Your task to perform on an android device: turn off priority inbox in the gmail app Image 0: 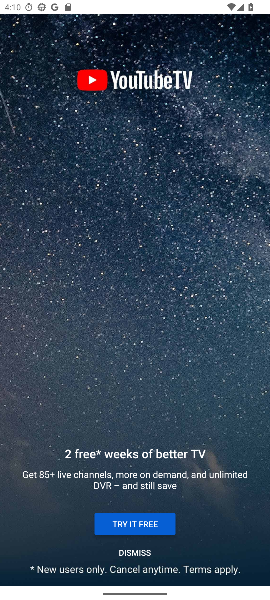
Step 0: press home button
Your task to perform on an android device: turn off priority inbox in the gmail app Image 1: 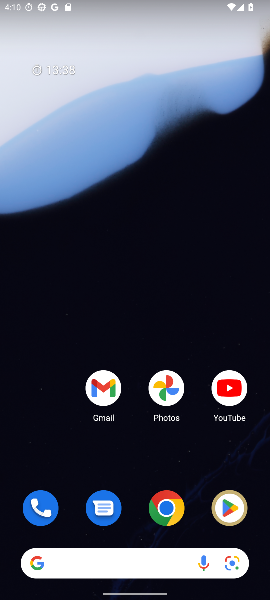
Step 1: drag from (78, 546) to (158, 133)
Your task to perform on an android device: turn off priority inbox in the gmail app Image 2: 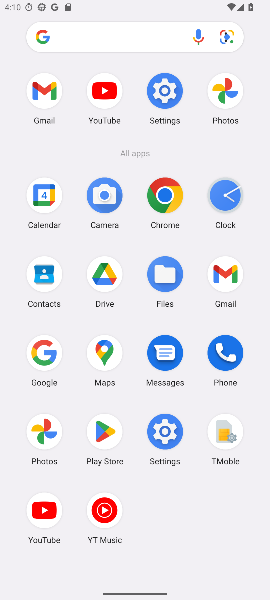
Step 2: click (232, 264)
Your task to perform on an android device: turn off priority inbox in the gmail app Image 3: 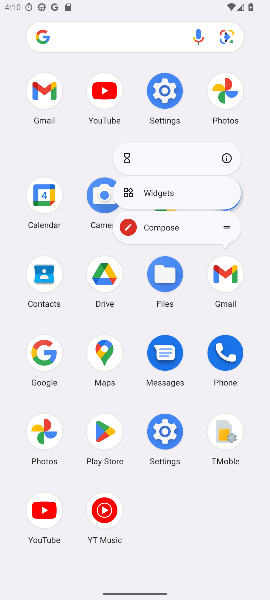
Step 3: click (226, 155)
Your task to perform on an android device: turn off priority inbox in the gmail app Image 4: 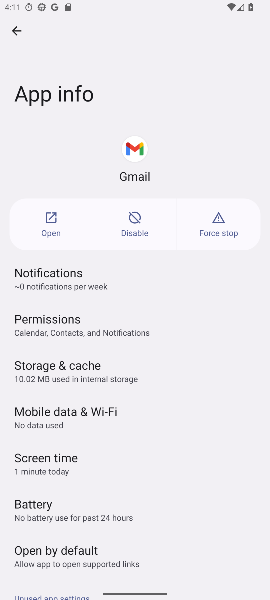
Step 4: click (55, 221)
Your task to perform on an android device: turn off priority inbox in the gmail app Image 5: 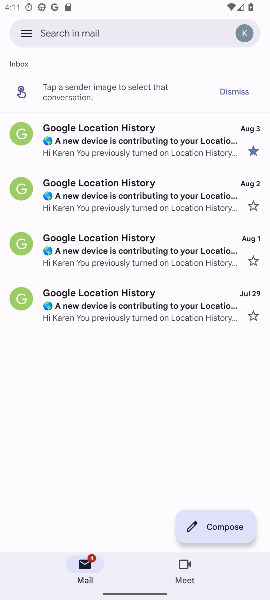
Step 5: drag from (100, 485) to (151, 205)
Your task to perform on an android device: turn off priority inbox in the gmail app Image 6: 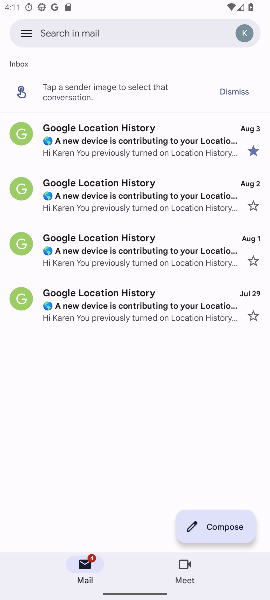
Step 6: click (25, 33)
Your task to perform on an android device: turn off priority inbox in the gmail app Image 7: 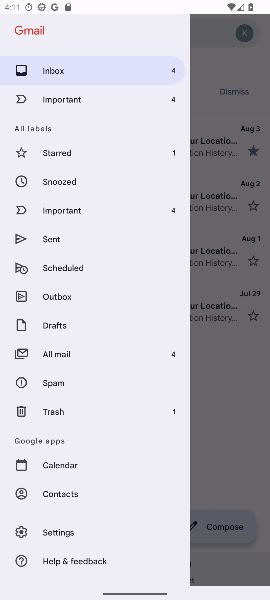
Step 7: click (39, 531)
Your task to perform on an android device: turn off priority inbox in the gmail app Image 8: 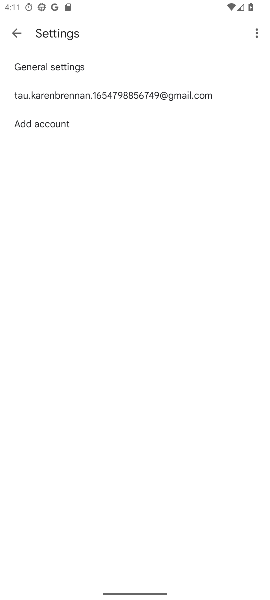
Step 8: drag from (132, 369) to (160, 142)
Your task to perform on an android device: turn off priority inbox in the gmail app Image 9: 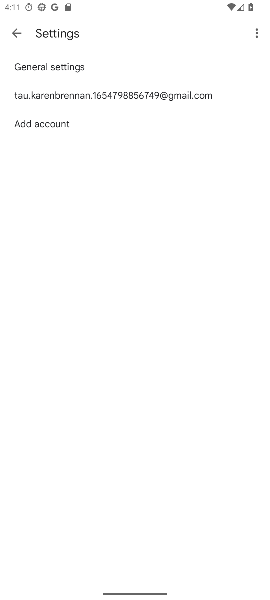
Step 9: click (86, 98)
Your task to perform on an android device: turn off priority inbox in the gmail app Image 10: 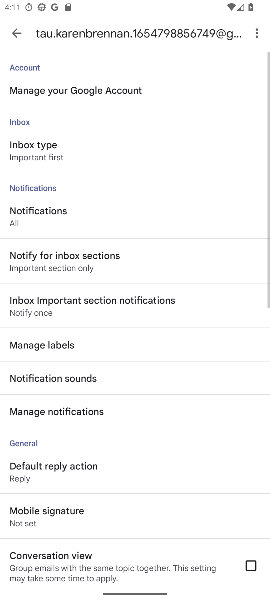
Step 10: drag from (108, 512) to (163, 240)
Your task to perform on an android device: turn off priority inbox in the gmail app Image 11: 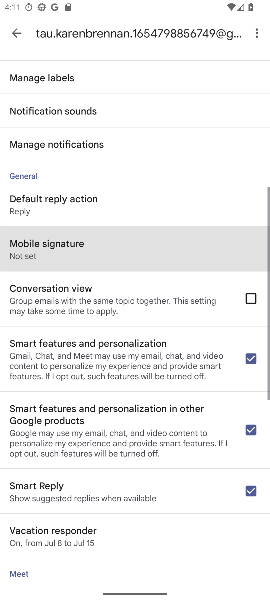
Step 11: drag from (164, 219) to (153, 598)
Your task to perform on an android device: turn off priority inbox in the gmail app Image 12: 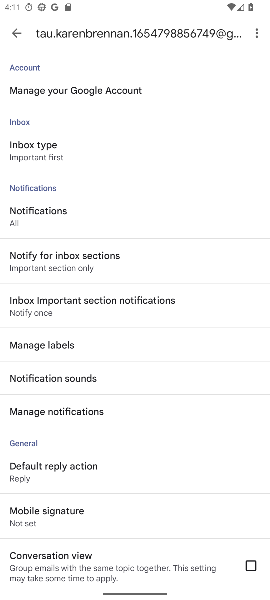
Step 12: click (70, 154)
Your task to perform on an android device: turn off priority inbox in the gmail app Image 13: 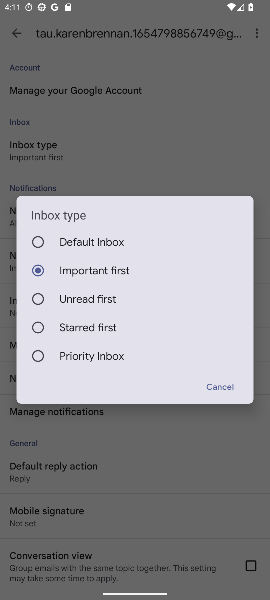
Step 13: click (66, 241)
Your task to perform on an android device: turn off priority inbox in the gmail app Image 14: 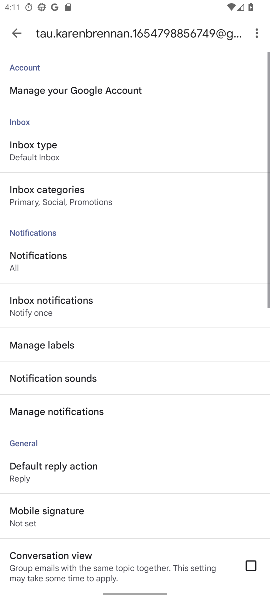
Step 14: task complete